Your task to perform on an android device: Go to calendar. Show me events next week Image 0: 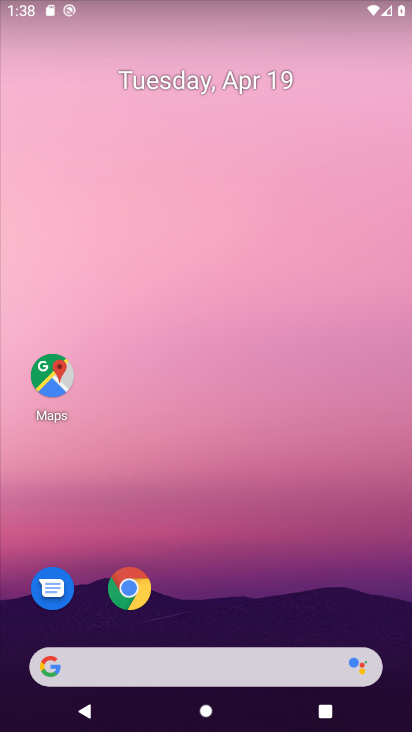
Step 0: drag from (199, 590) to (239, 192)
Your task to perform on an android device: Go to calendar. Show me events next week Image 1: 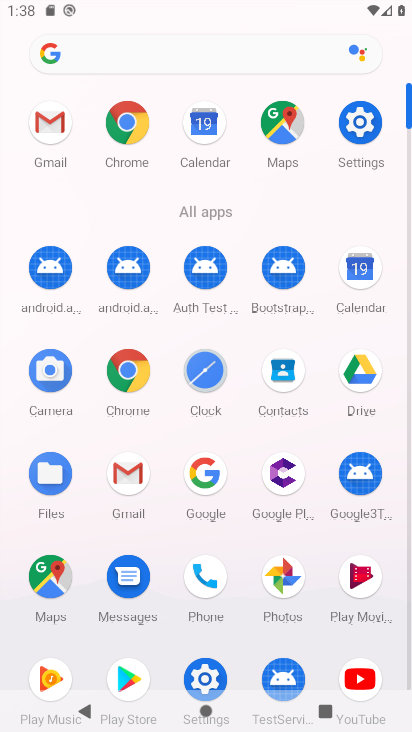
Step 1: click (204, 131)
Your task to perform on an android device: Go to calendar. Show me events next week Image 2: 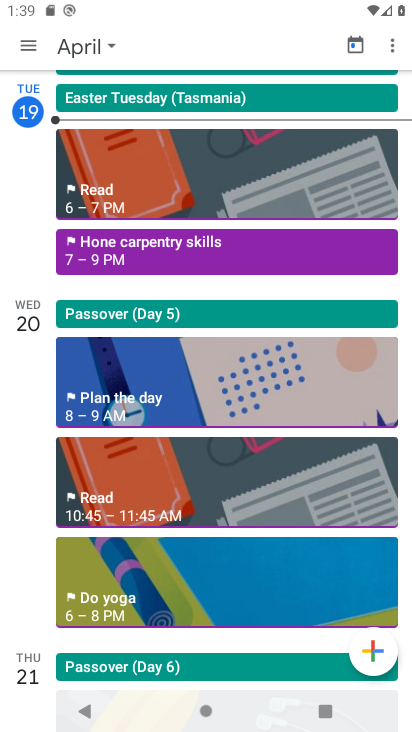
Step 2: click (109, 47)
Your task to perform on an android device: Go to calendar. Show me events next week Image 3: 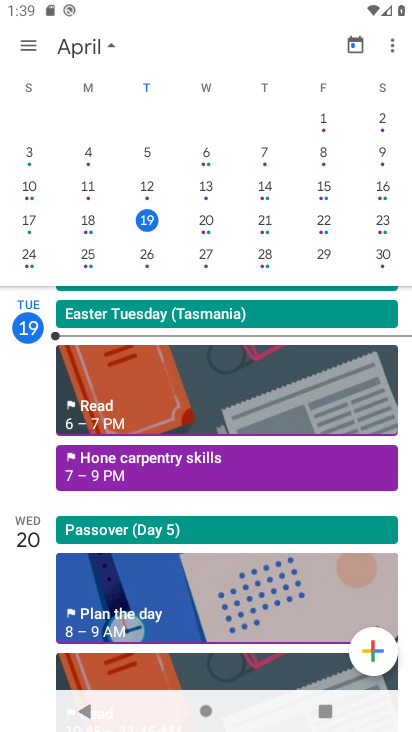
Step 3: click (88, 258)
Your task to perform on an android device: Go to calendar. Show me events next week Image 4: 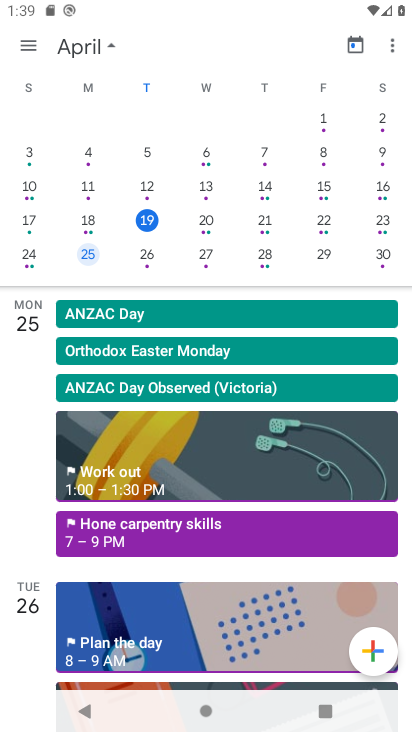
Step 4: click (144, 259)
Your task to perform on an android device: Go to calendar. Show me events next week Image 5: 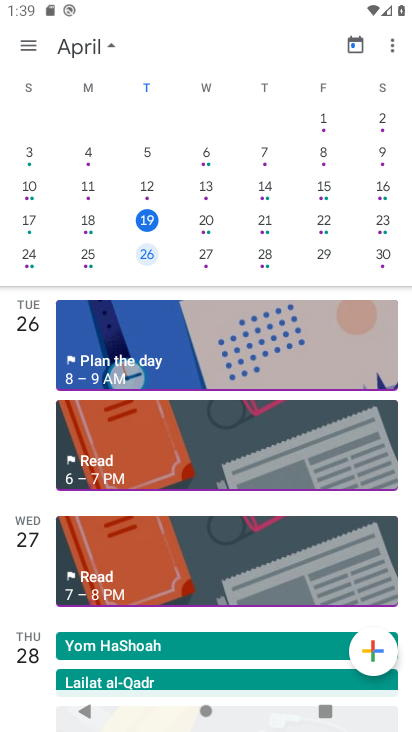
Step 5: click (208, 263)
Your task to perform on an android device: Go to calendar. Show me events next week Image 6: 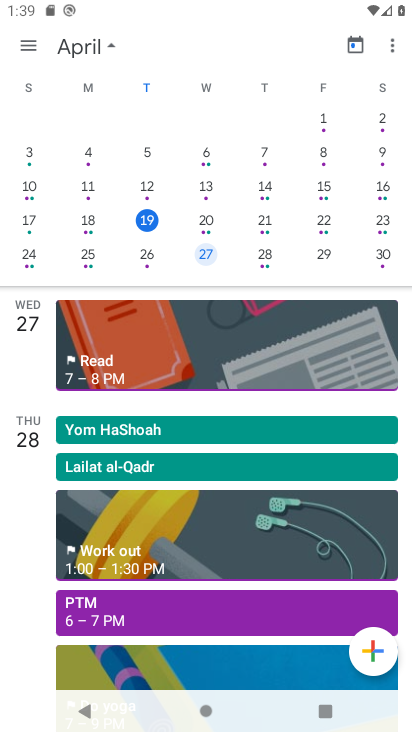
Step 6: click (257, 264)
Your task to perform on an android device: Go to calendar. Show me events next week Image 7: 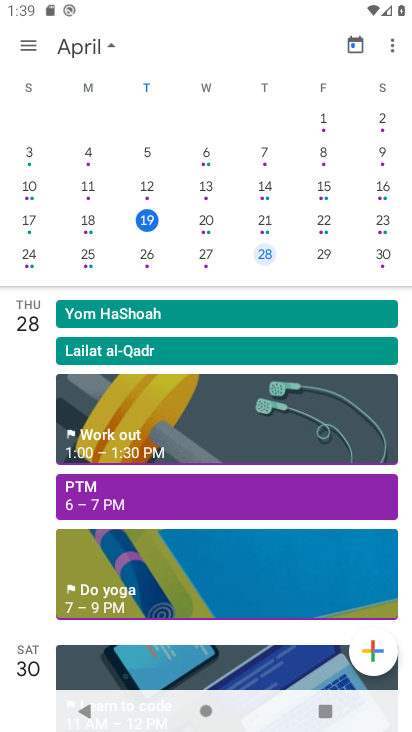
Step 7: click (321, 259)
Your task to perform on an android device: Go to calendar. Show me events next week Image 8: 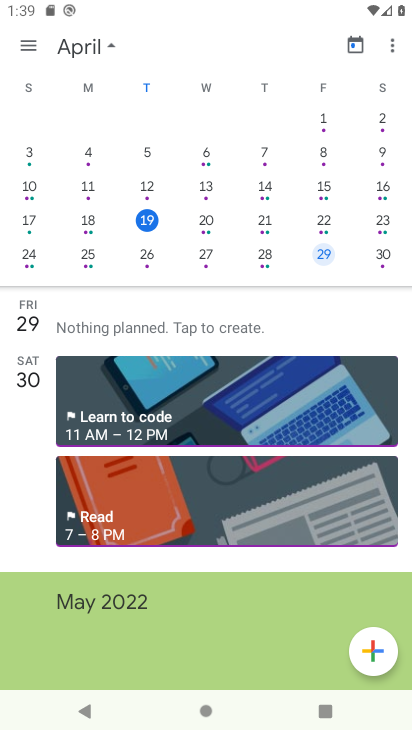
Step 8: click (381, 261)
Your task to perform on an android device: Go to calendar. Show me events next week Image 9: 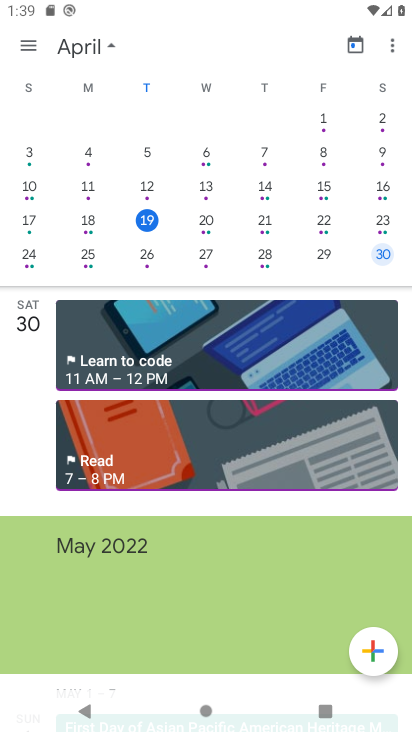
Step 9: task complete